Your task to perform on an android device: Go to battery settings Image 0: 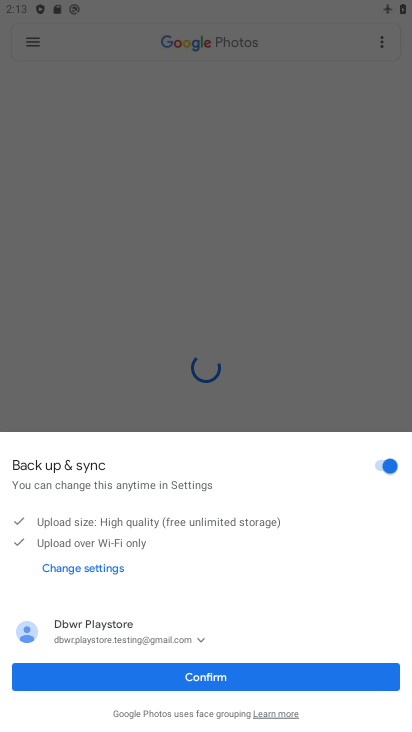
Step 0: press home button
Your task to perform on an android device: Go to battery settings Image 1: 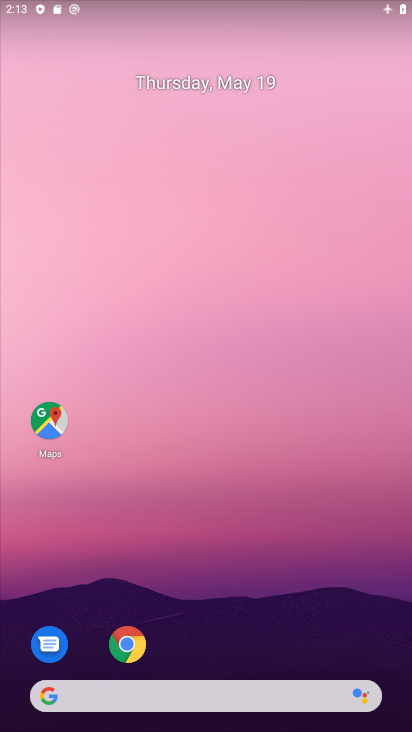
Step 1: drag from (209, 528) to (187, 232)
Your task to perform on an android device: Go to battery settings Image 2: 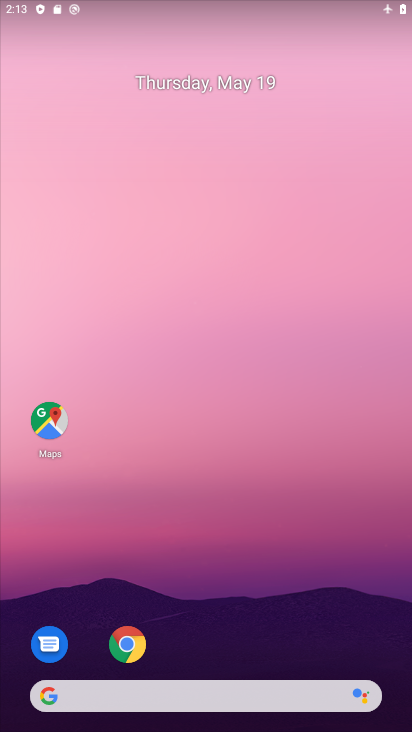
Step 2: click (259, 608)
Your task to perform on an android device: Go to battery settings Image 3: 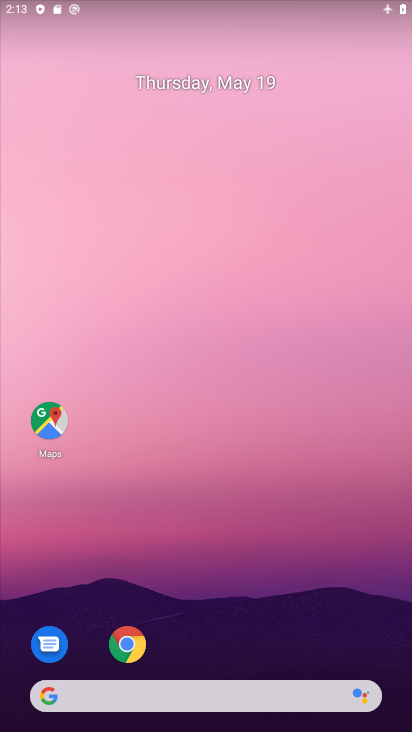
Step 3: drag from (260, 609) to (299, 265)
Your task to perform on an android device: Go to battery settings Image 4: 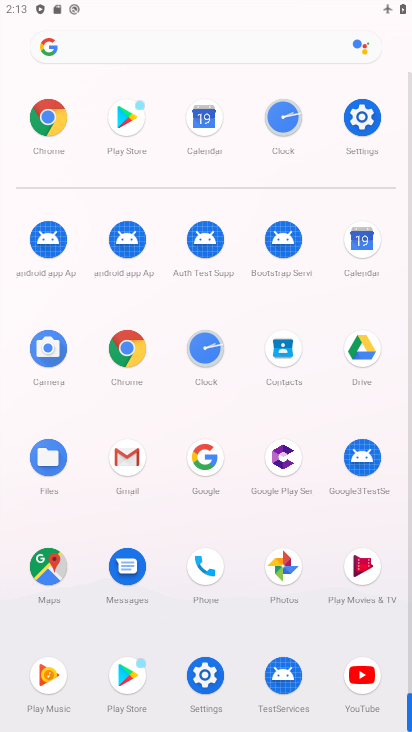
Step 4: click (361, 120)
Your task to perform on an android device: Go to battery settings Image 5: 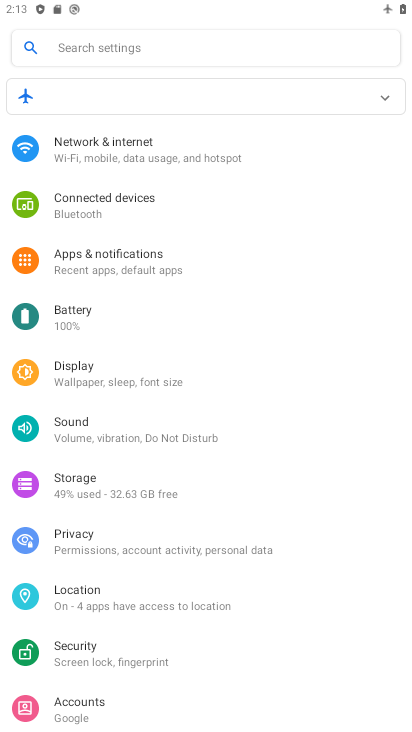
Step 5: click (87, 322)
Your task to perform on an android device: Go to battery settings Image 6: 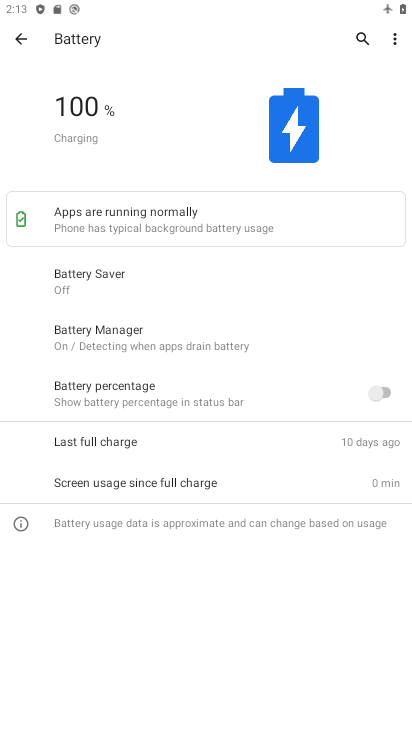
Step 6: task complete